Your task to perform on an android device: Open the phone app and click the voicemail tab. Image 0: 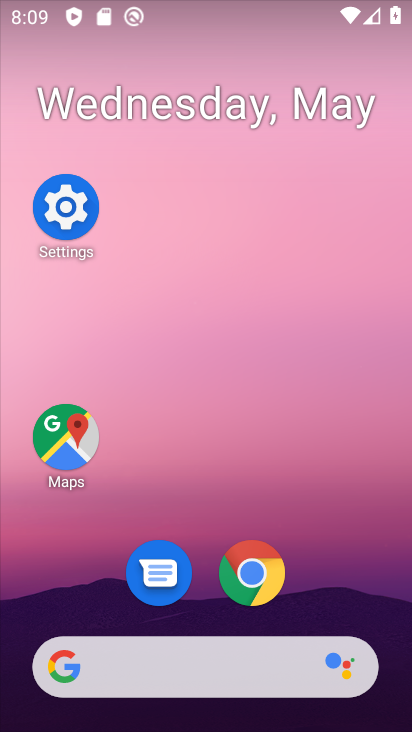
Step 0: drag from (333, 611) to (298, 217)
Your task to perform on an android device: Open the phone app and click the voicemail tab. Image 1: 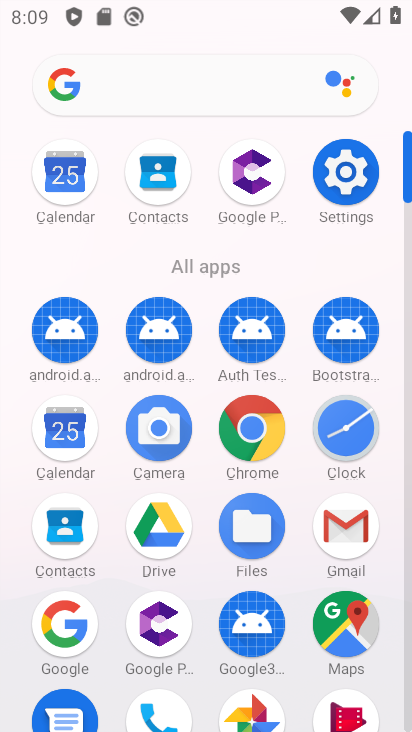
Step 1: drag from (144, 616) to (176, 314)
Your task to perform on an android device: Open the phone app and click the voicemail tab. Image 2: 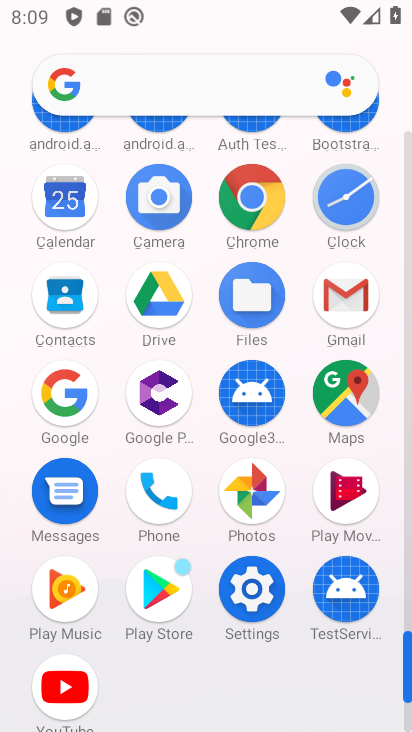
Step 2: click (147, 519)
Your task to perform on an android device: Open the phone app and click the voicemail tab. Image 3: 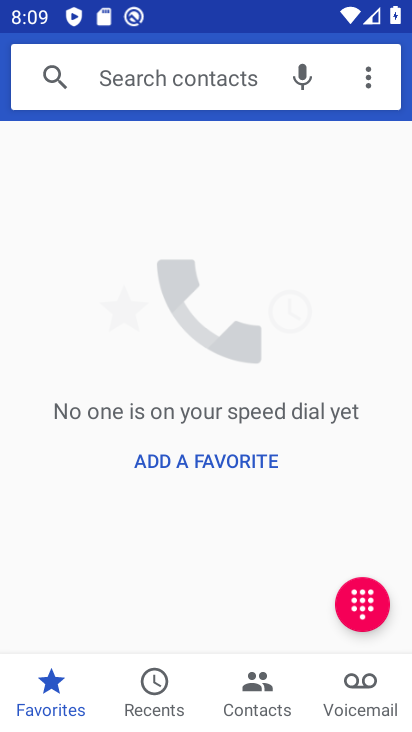
Step 3: click (364, 682)
Your task to perform on an android device: Open the phone app and click the voicemail tab. Image 4: 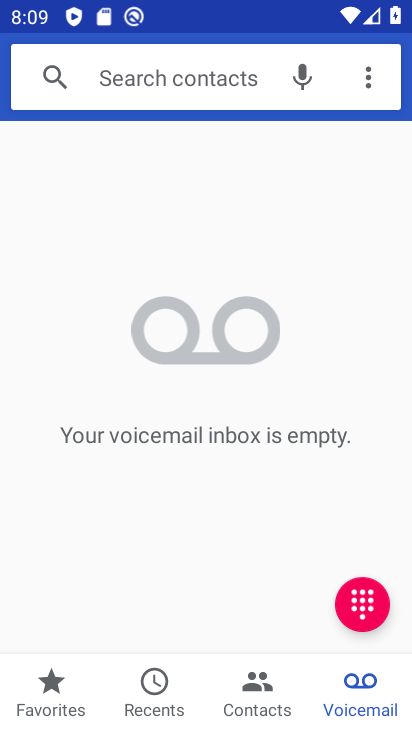
Step 4: task complete